Your task to perform on an android device: What is the news today? Image 0: 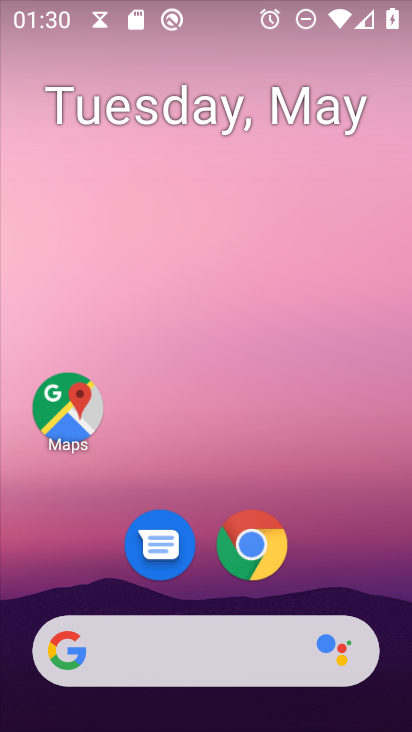
Step 0: drag from (333, 576) to (351, 48)
Your task to perform on an android device: What is the news today? Image 1: 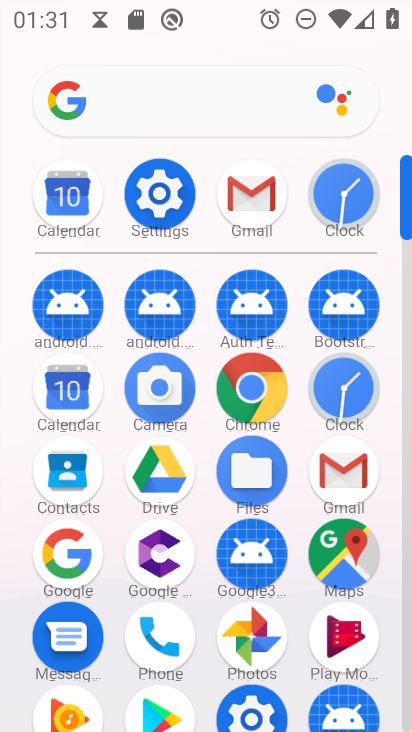
Step 1: click (157, 86)
Your task to perform on an android device: What is the news today? Image 2: 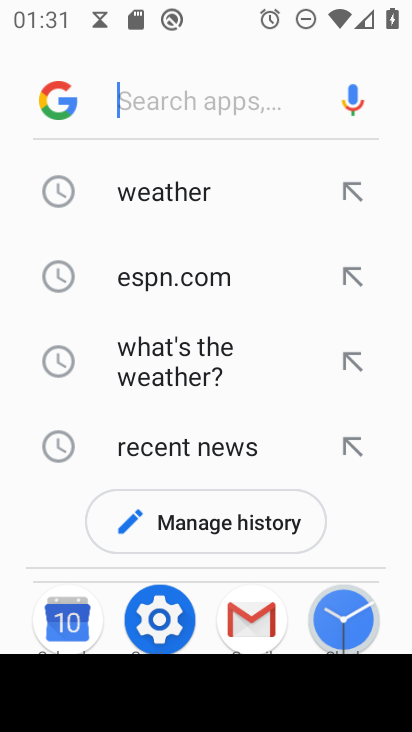
Step 2: type "what is the news today"
Your task to perform on an android device: What is the news today? Image 3: 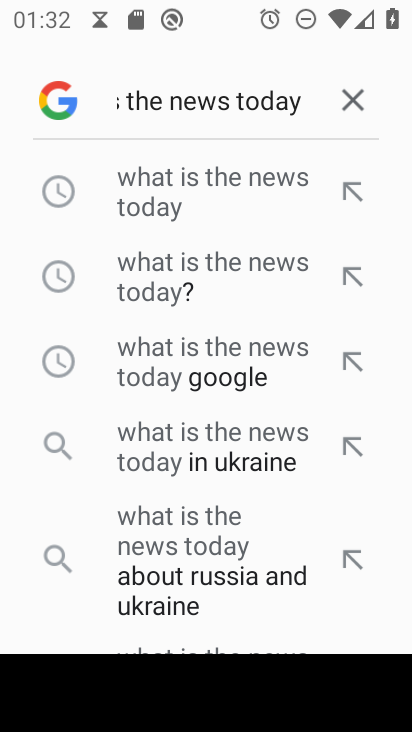
Step 3: click (305, 187)
Your task to perform on an android device: What is the news today? Image 4: 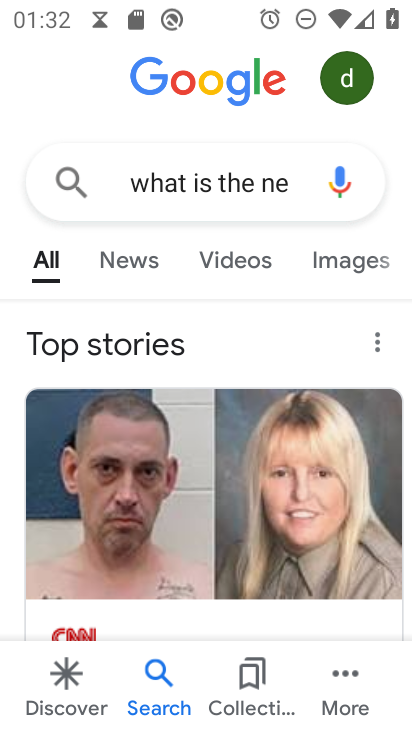
Step 4: click (143, 247)
Your task to perform on an android device: What is the news today? Image 5: 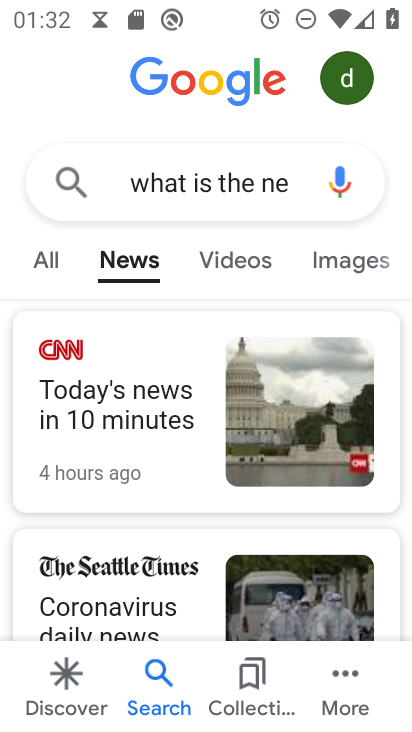
Step 5: task complete